Your task to perform on an android device: Is it going to rain tomorrow? Image 0: 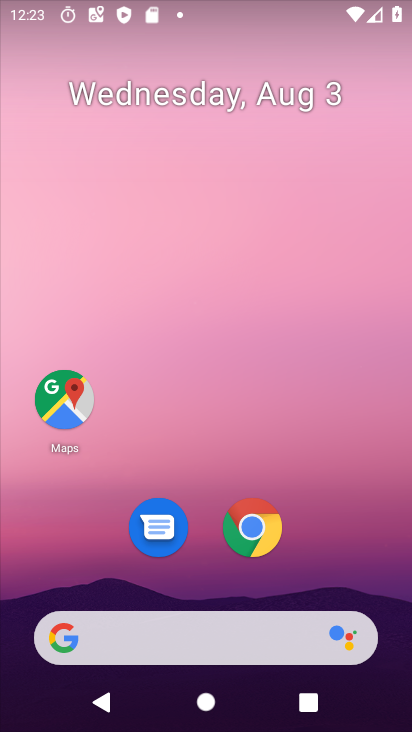
Step 0: click (192, 632)
Your task to perform on an android device: Is it going to rain tomorrow? Image 1: 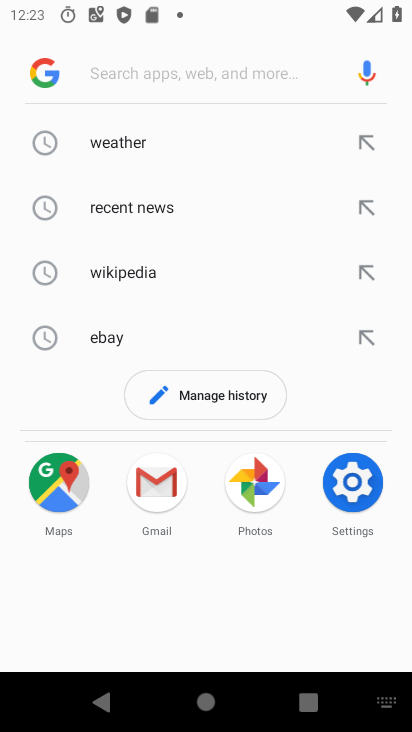
Step 1: click (128, 144)
Your task to perform on an android device: Is it going to rain tomorrow? Image 2: 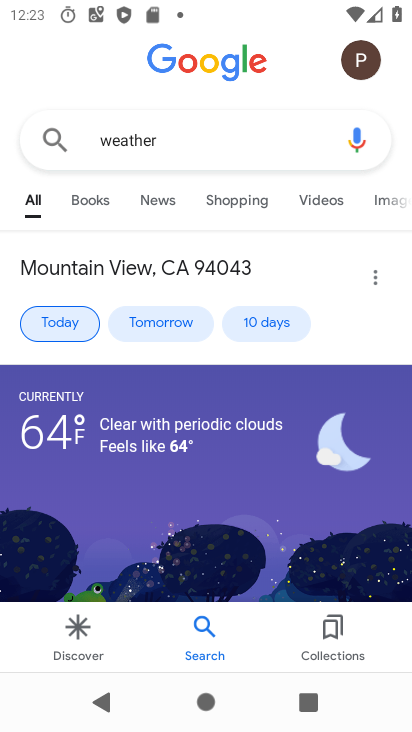
Step 2: click (168, 326)
Your task to perform on an android device: Is it going to rain tomorrow? Image 3: 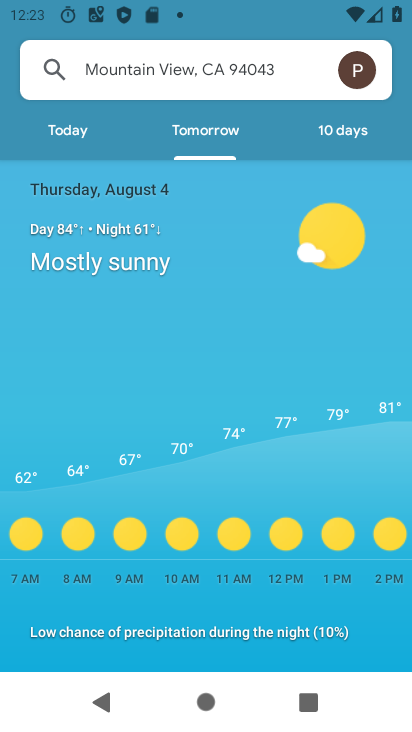
Step 3: task complete